Your task to perform on an android device: Go to Google Image 0: 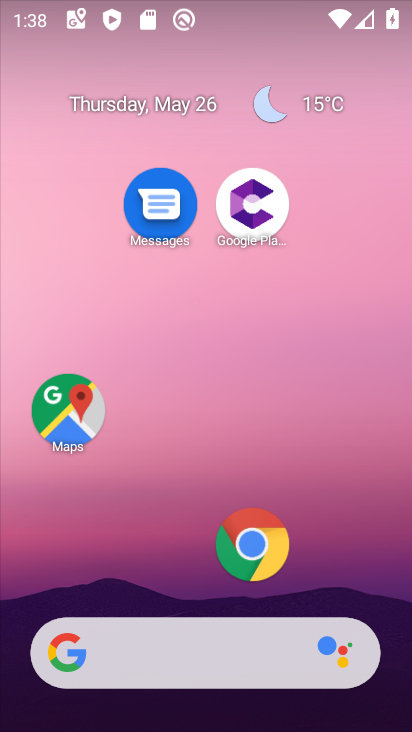
Step 0: click (169, 650)
Your task to perform on an android device: Go to Google Image 1: 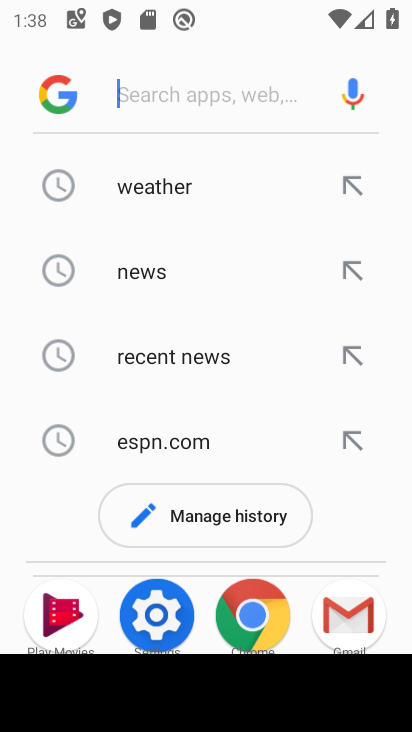
Step 1: task complete